Your task to perform on an android device: change notification settings in the gmail app Image 0: 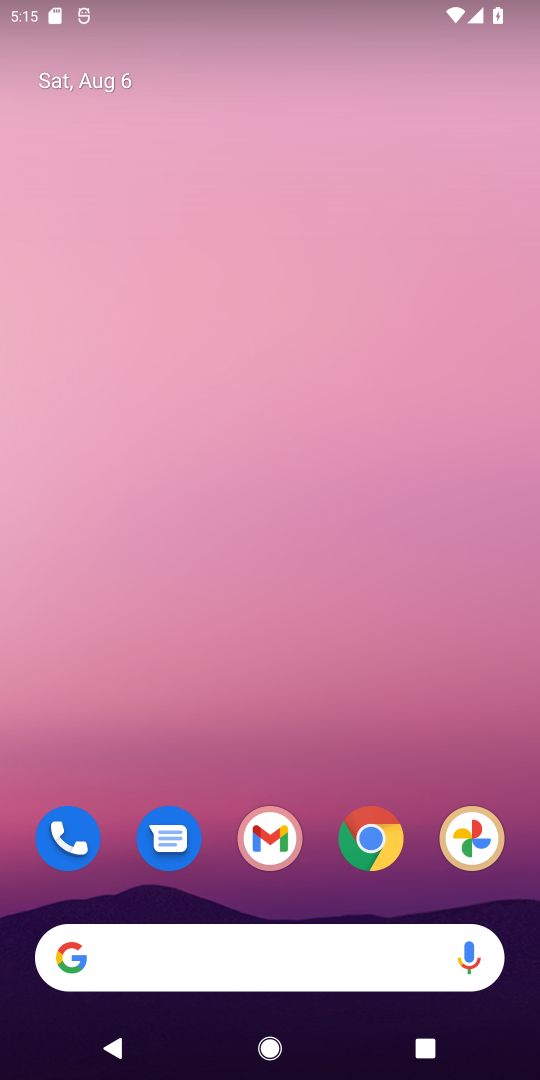
Step 0: press home button
Your task to perform on an android device: change notification settings in the gmail app Image 1: 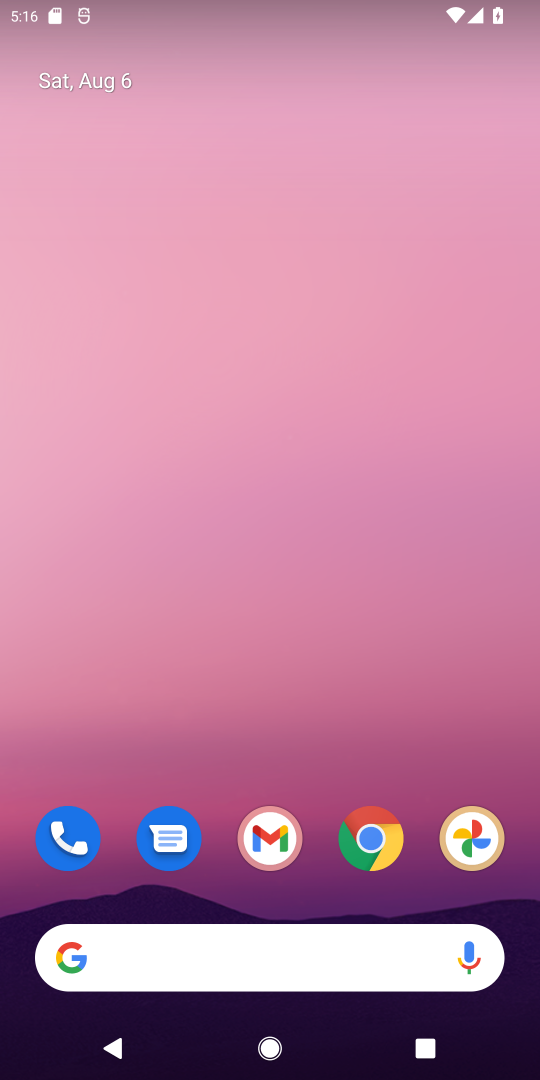
Step 1: click (263, 850)
Your task to perform on an android device: change notification settings in the gmail app Image 2: 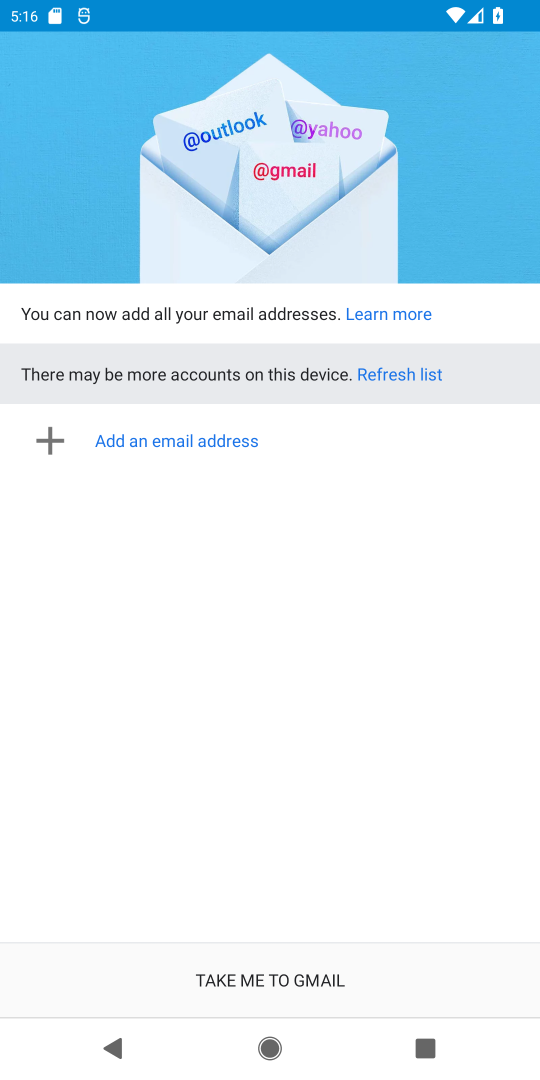
Step 2: click (308, 977)
Your task to perform on an android device: change notification settings in the gmail app Image 3: 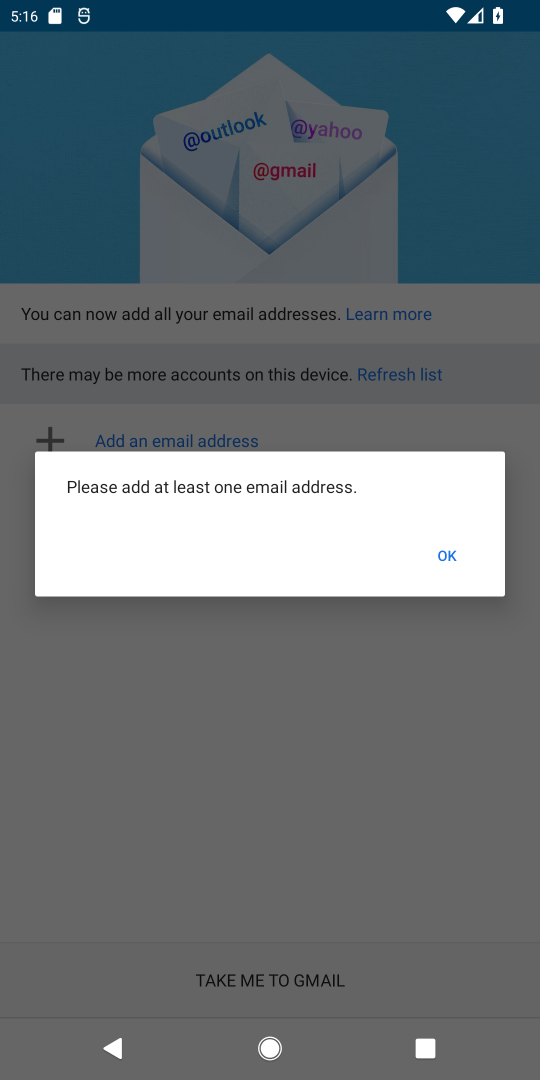
Step 3: task complete